Your task to perform on an android device: Open ESPN.com Image 0: 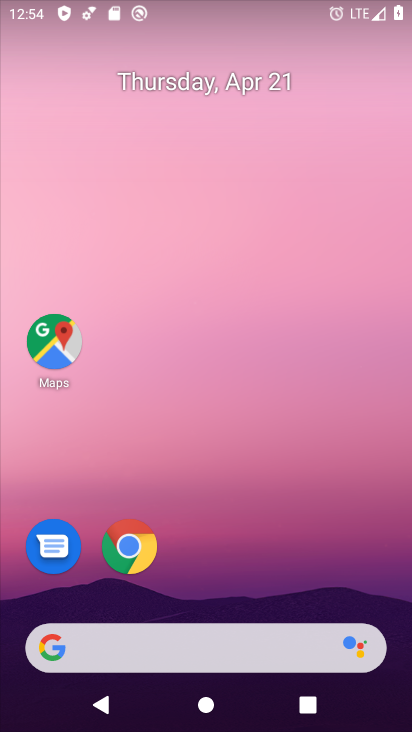
Step 0: click (136, 547)
Your task to perform on an android device: Open ESPN.com Image 1: 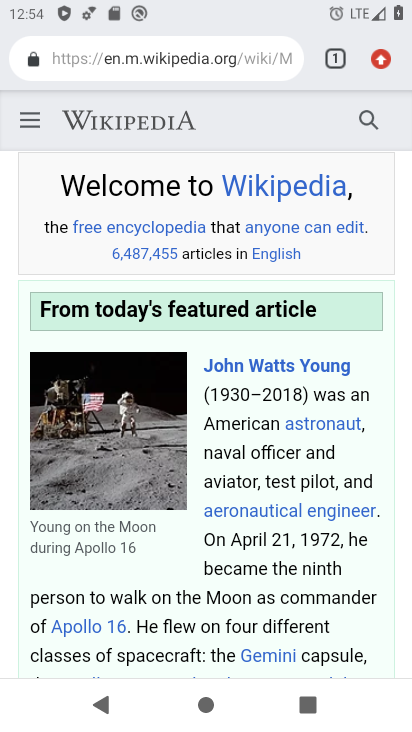
Step 1: click (168, 57)
Your task to perform on an android device: Open ESPN.com Image 2: 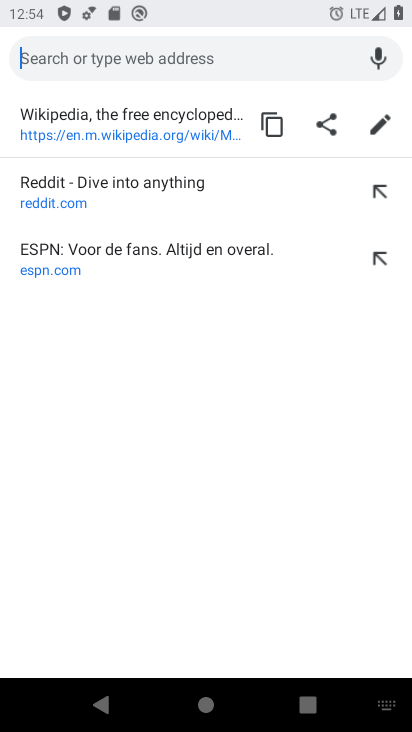
Step 2: type "ESPN.com"
Your task to perform on an android device: Open ESPN.com Image 3: 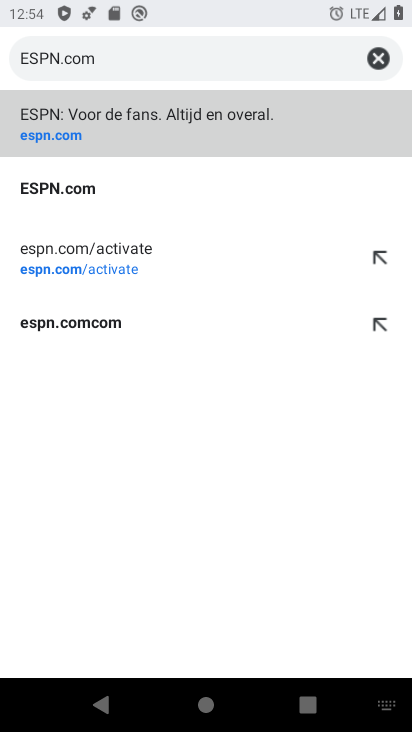
Step 3: click (45, 139)
Your task to perform on an android device: Open ESPN.com Image 4: 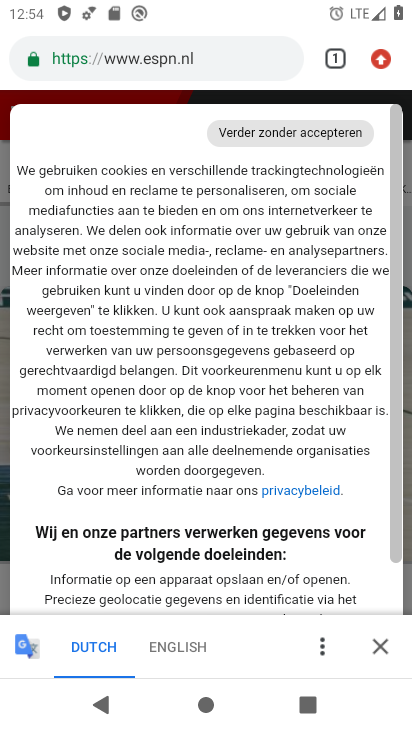
Step 4: task complete